Your task to perform on an android device: toggle notification dots Image 0: 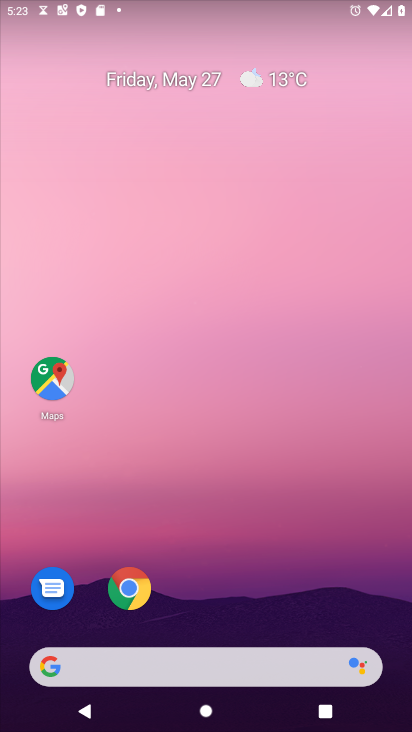
Step 0: drag from (248, 512) to (256, 49)
Your task to perform on an android device: toggle notification dots Image 1: 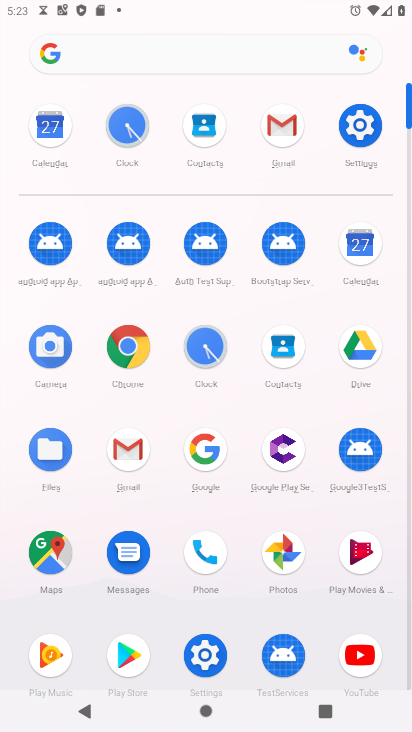
Step 1: click (373, 117)
Your task to perform on an android device: toggle notification dots Image 2: 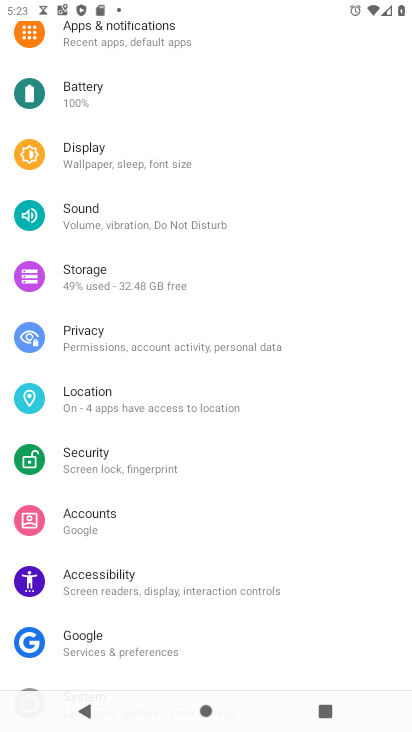
Step 2: drag from (242, 168) to (180, 604)
Your task to perform on an android device: toggle notification dots Image 3: 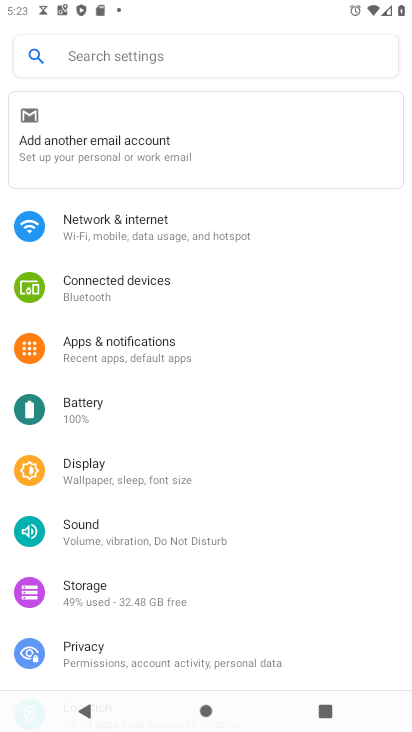
Step 3: click (114, 343)
Your task to perform on an android device: toggle notification dots Image 4: 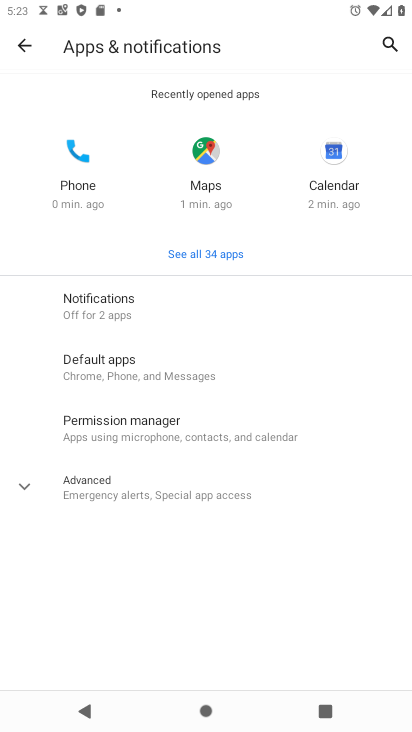
Step 4: click (108, 302)
Your task to perform on an android device: toggle notification dots Image 5: 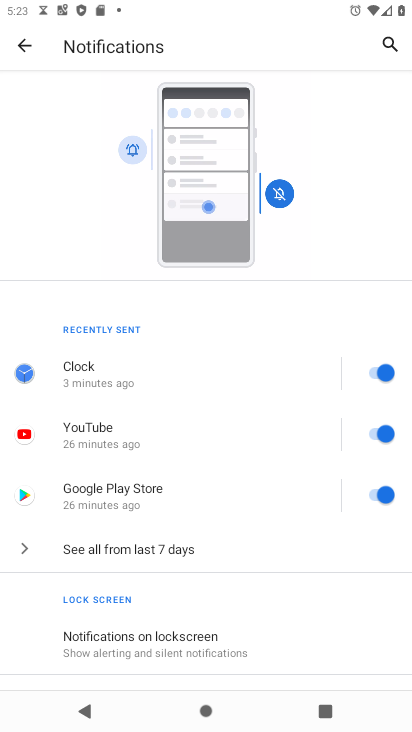
Step 5: drag from (146, 628) to (210, 178)
Your task to perform on an android device: toggle notification dots Image 6: 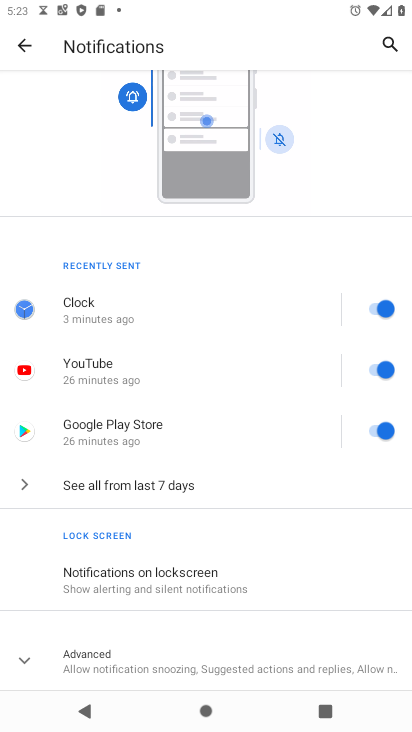
Step 6: click (163, 652)
Your task to perform on an android device: toggle notification dots Image 7: 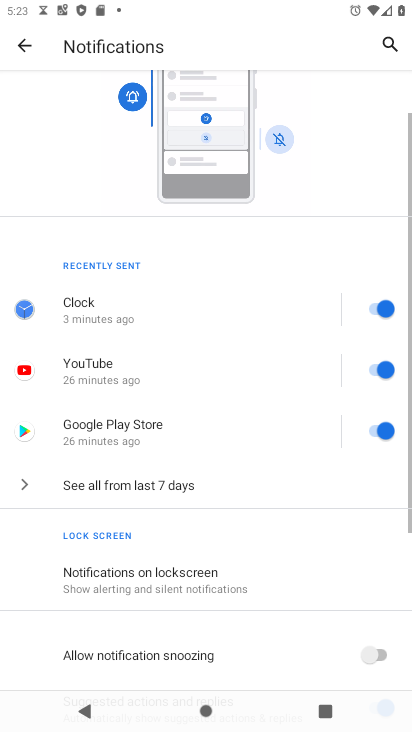
Step 7: drag from (191, 608) to (301, 96)
Your task to perform on an android device: toggle notification dots Image 8: 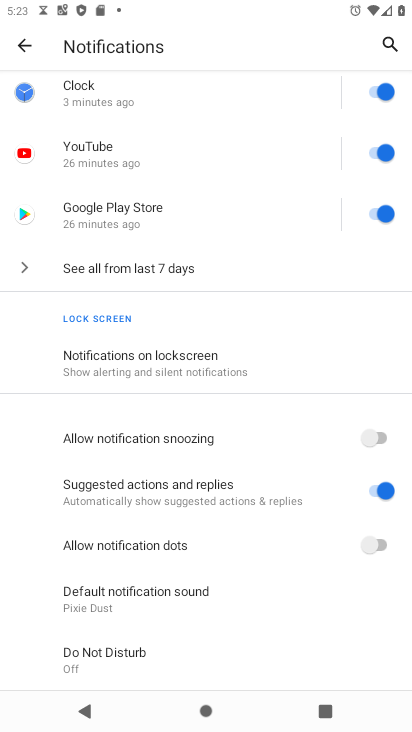
Step 8: click (370, 550)
Your task to perform on an android device: toggle notification dots Image 9: 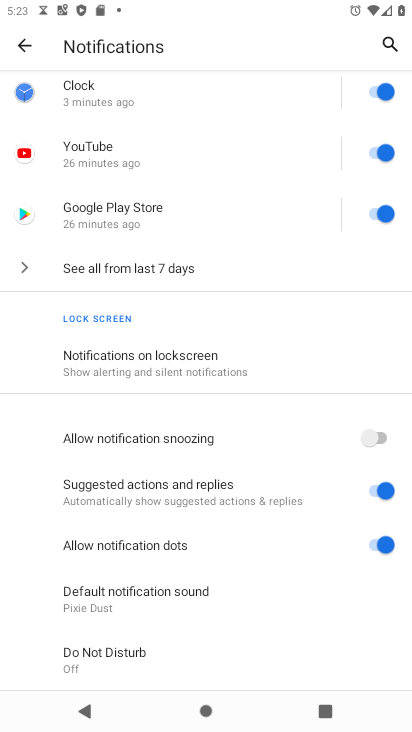
Step 9: task complete